Your task to perform on an android device: When is my next appointment? Image 0: 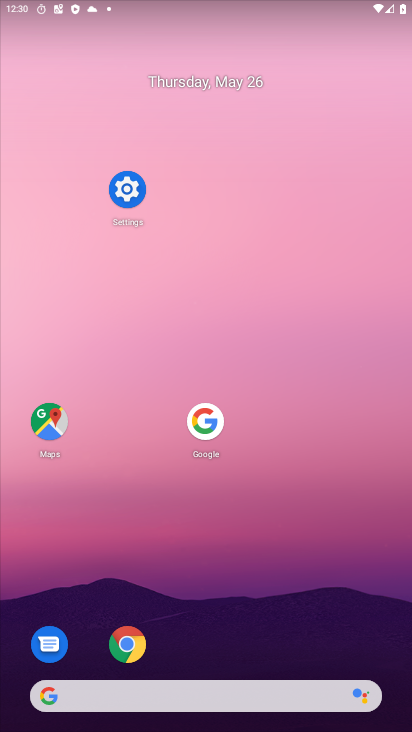
Step 0: drag from (229, 591) to (292, 36)
Your task to perform on an android device: When is my next appointment? Image 1: 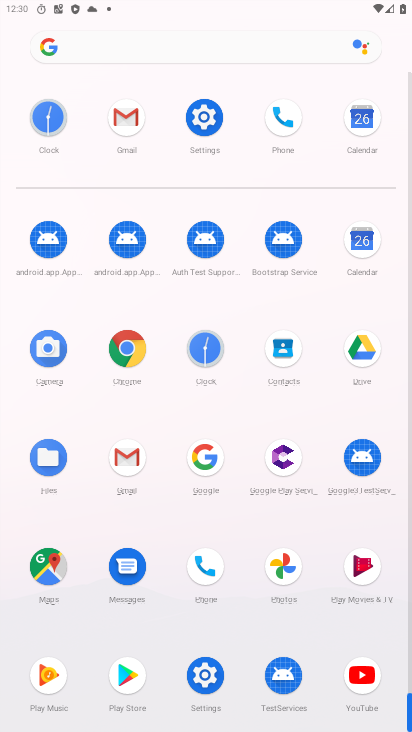
Step 1: click (360, 240)
Your task to perform on an android device: When is my next appointment? Image 2: 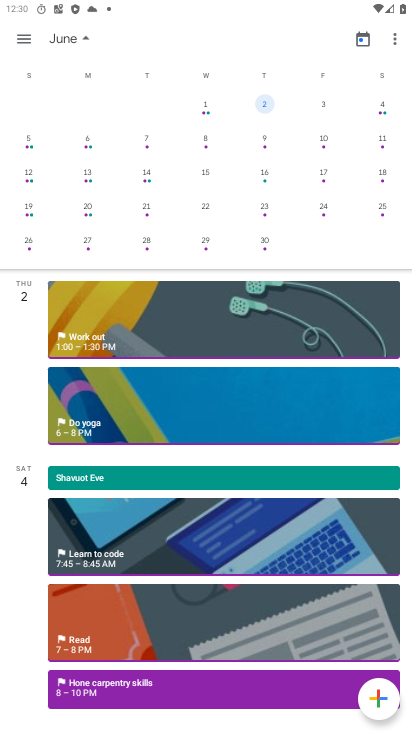
Step 2: drag from (62, 234) to (410, 216)
Your task to perform on an android device: When is my next appointment? Image 3: 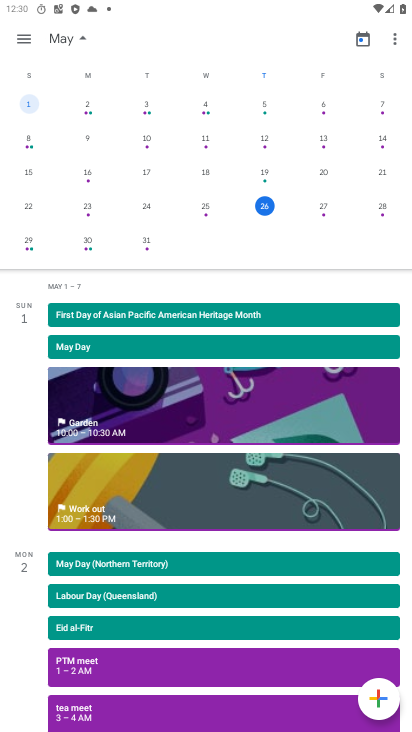
Step 3: drag from (342, 251) to (305, 239)
Your task to perform on an android device: When is my next appointment? Image 4: 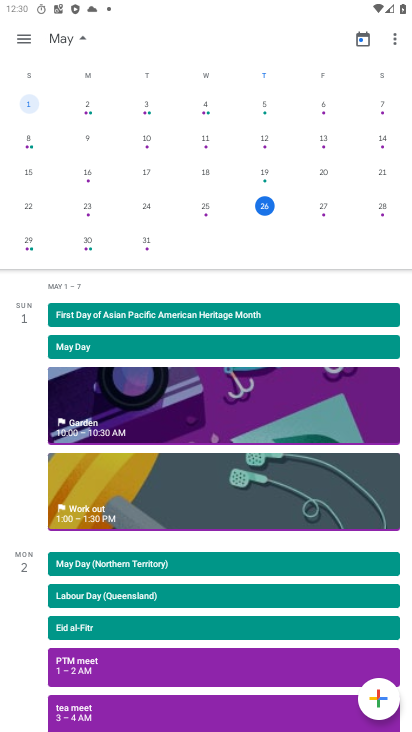
Step 4: click (322, 206)
Your task to perform on an android device: When is my next appointment? Image 5: 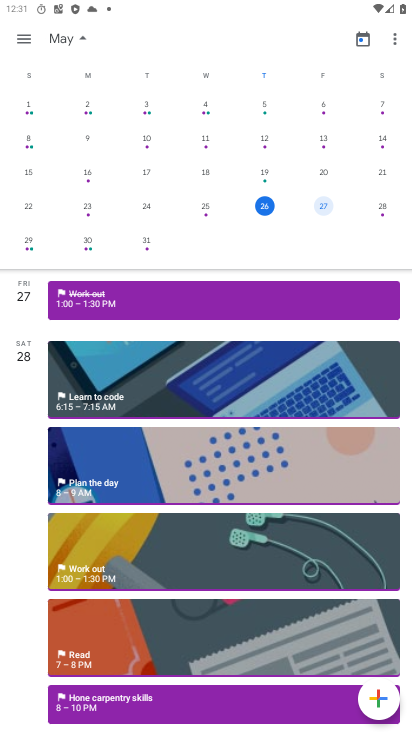
Step 5: task complete